Your task to perform on an android device: Show the shopping cart on target.com. Search for jbl flip 4 on target.com, select the first entry, add it to the cart, then select checkout. Image 0: 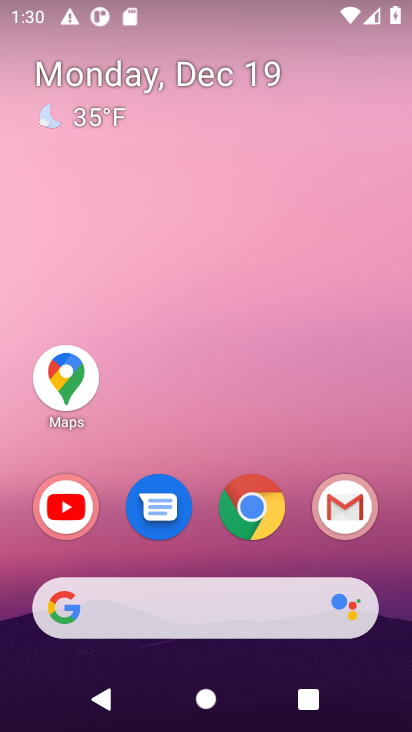
Step 0: click (250, 509)
Your task to perform on an android device: Show the shopping cart on target.com. Search for jbl flip 4 on target.com, select the first entry, add it to the cart, then select checkout. Image 1: 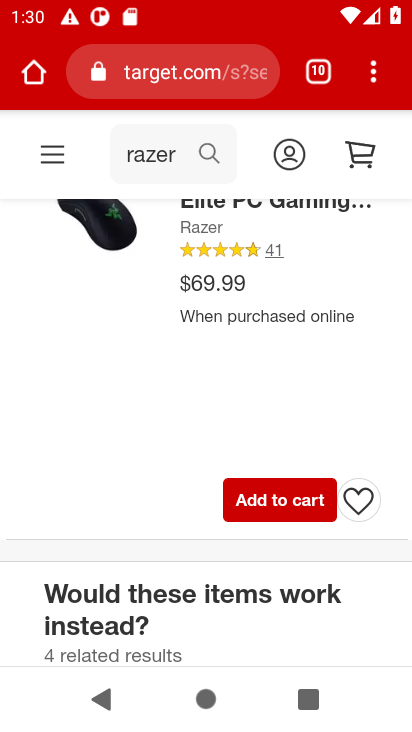
Step 1: click (357, 158)
Your task to perform on an android device: Show the shopping cart on target.com. Search for jbl flip 4 on target.com, select the first entry, add it to the cart, then select checkout. Image 2: 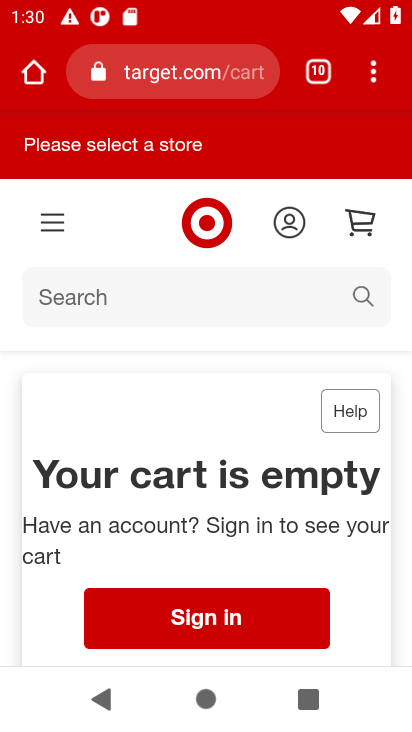
Step 2: drag from (165, 423) to (165, 278)
Your task to perform on an android device: Show the shopping cart on target.com. Search for jbl flip 4 on target.com, select the first entry, add it to the cart, then select checkout. Image 3: 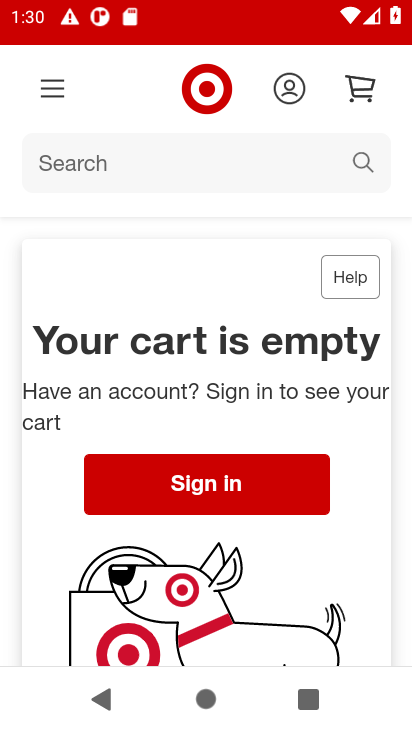
Step 3: click (105, 168)
Your task to perform on an android device: Show the shopping cart on target.com. Search for jbl flip 4 on target.com, select the first entry, add it to the cart, then select checkout. Image 4: 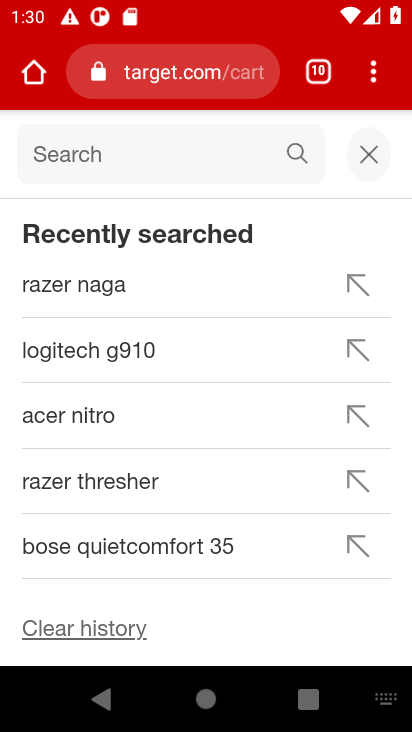
Step 4: type " jbl flip 4"
Your task to perform on an android device: Show the shopping cart on target.com. Search for jbl flip 4 on target.com, select the first entry, add it to the cart, then select checkout. Image 5: 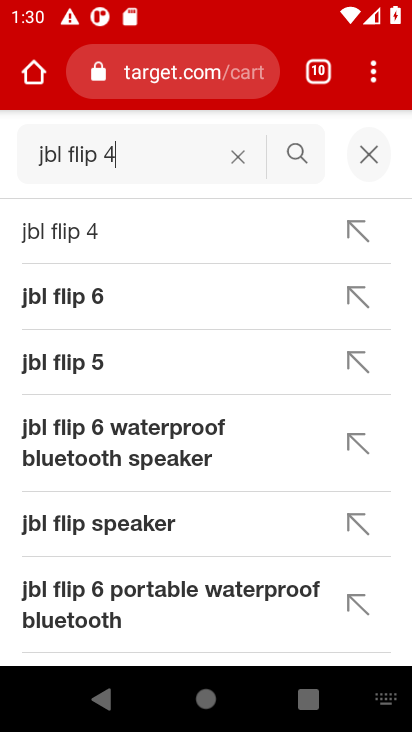
Step 5: click (71, 232)
Your task to perform on an android device: Show the shopping cart on target.com. Search for jbl flip 4 on target.com, select the first entry, add it to the cart, then select checkout. Image 6: 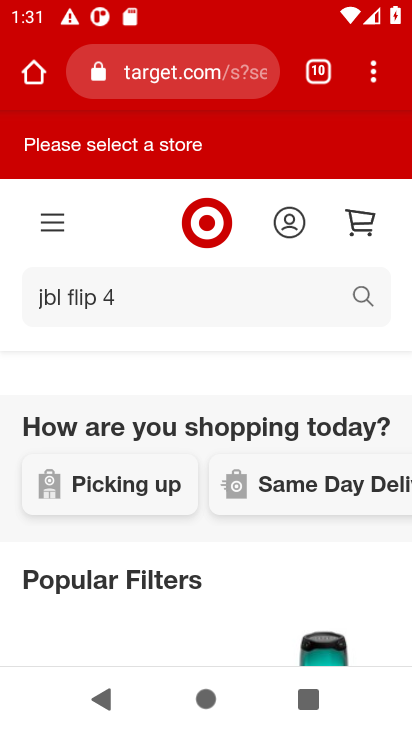
Step 6: task complete